Your task to perform on an android device: Go to Maps Image 0: 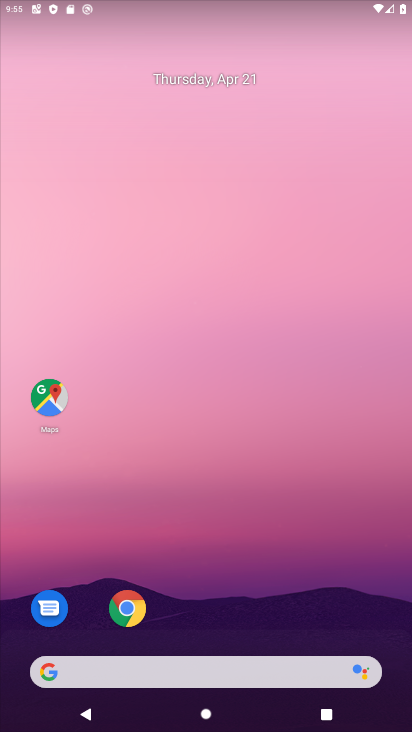
Step 0: click (40, 400)
Your task to perform on an android device: Go to Maps Image 1: 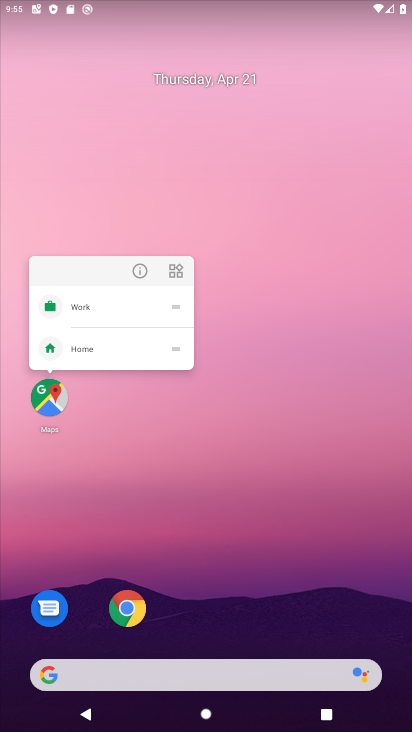
Step 1: click (51, 397)
Your task to perform on an android device: Go to Maps Image 2: 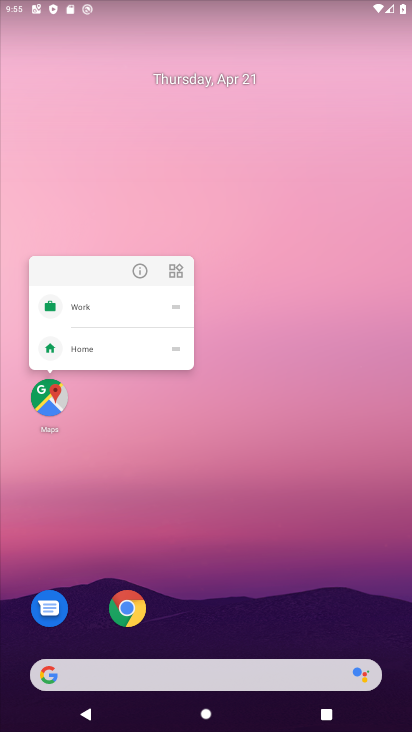
Step 2: click (42, 406)
Your task to perform on an android device: Go to Maps Image 3: 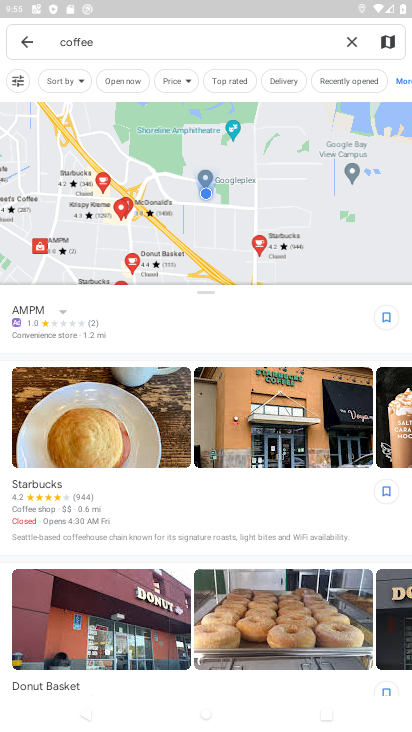
Step 3: task complete